Your task to perform on an android device: change the clock display to analog Image 0: 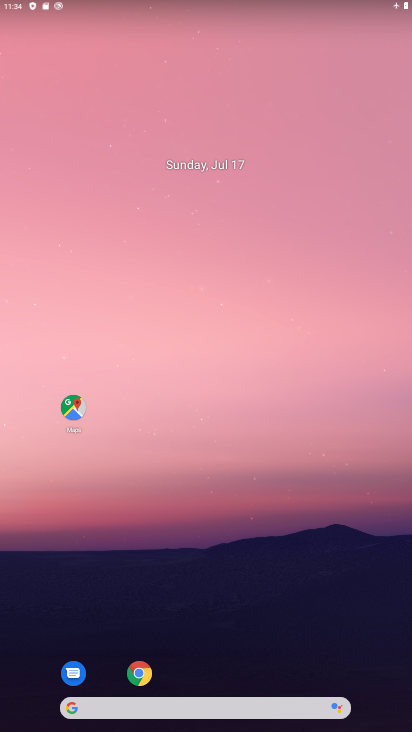
Step 0: drag from (282, 603) to (167, 115)
Your task to perform on an android device: change the clock display to analog Image 1: 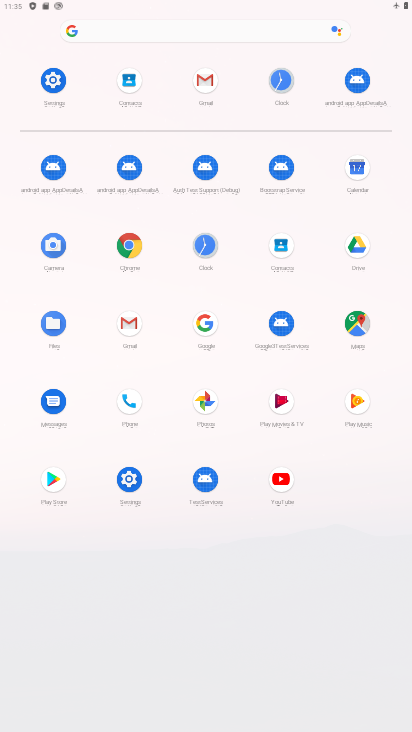
Step 1: click (279, 75)
Your task to perform on an android device: change the clock display to analog Image 2: 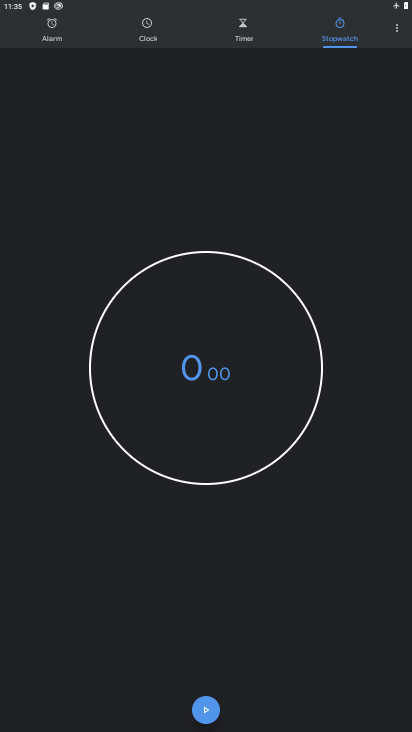
Step 2: click (396, 26)
Your task to perform on an android device: change the clock display to analog Image 3: 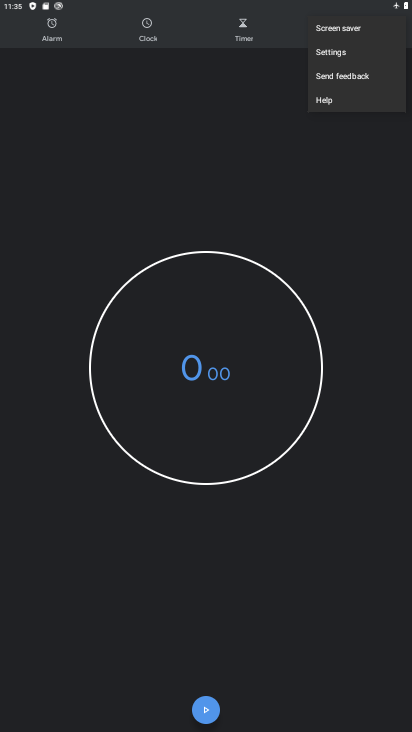
Step 3: click (341, 58)
Your task to perform on an android device: change the clock display to analog Image 4: 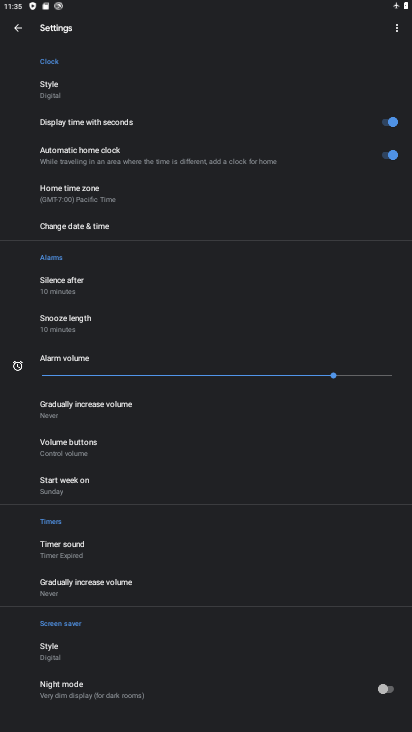
Step 4: click (53, 80)
Your task to perform on an android device: change the clock display to analog Image 5: 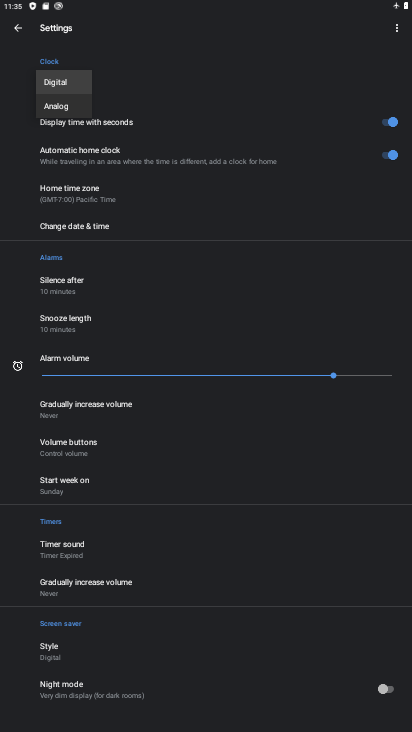
Step 5: click (73, 110)
Your task to perform on an android device: change the clock display to analog Image 6: 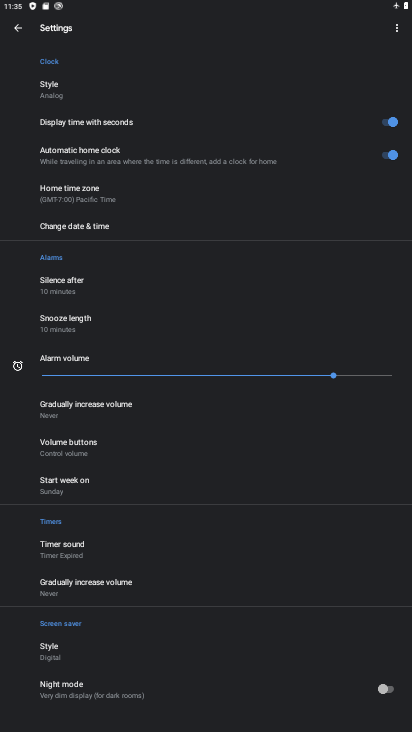
Step 6: task complete